Your task to perform on an android device: Do I have any events today? Image 0: 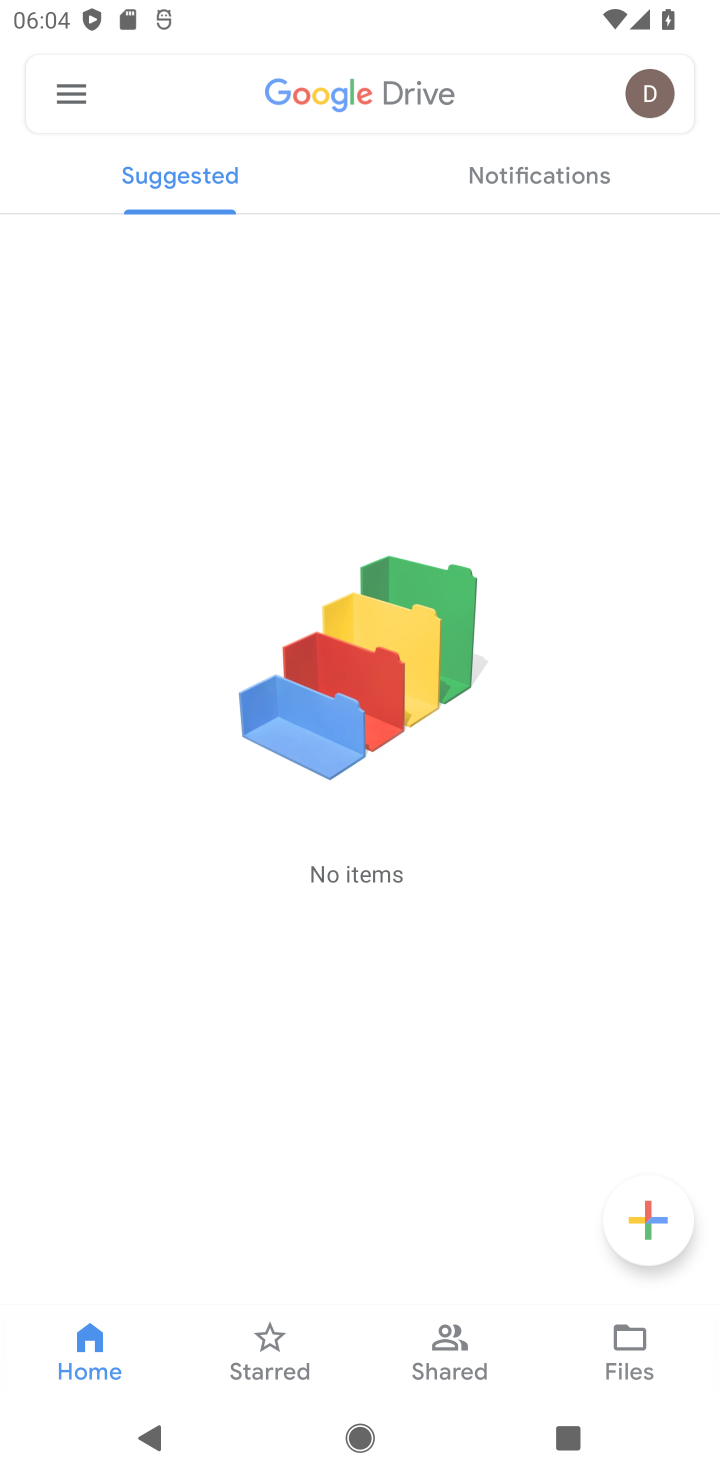
Step 0: press home button
Your task to perform on an android device: Do I have any events today? Image 1: 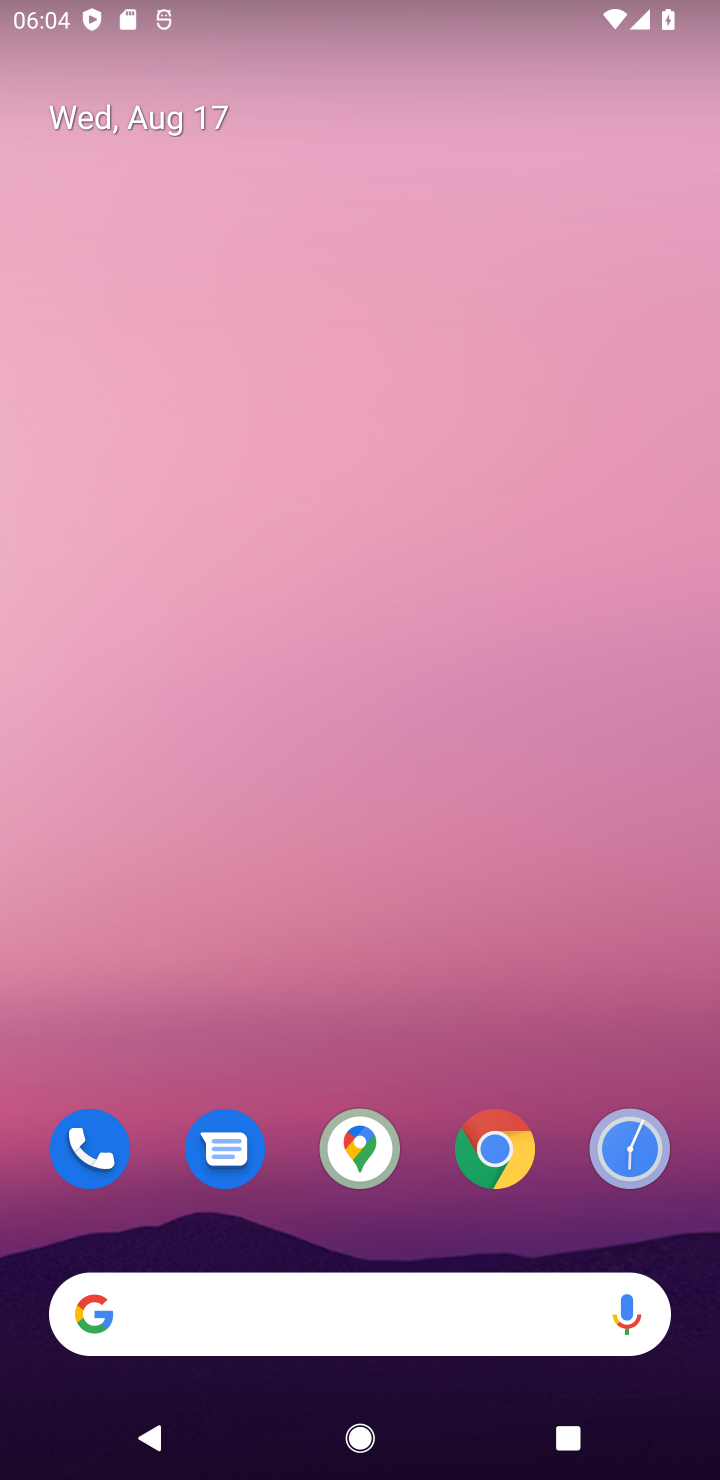
Step 1: drag from (445, 1059) to (339, 234)
Your task to perform on an android device: Do I have any events today? Image 2: 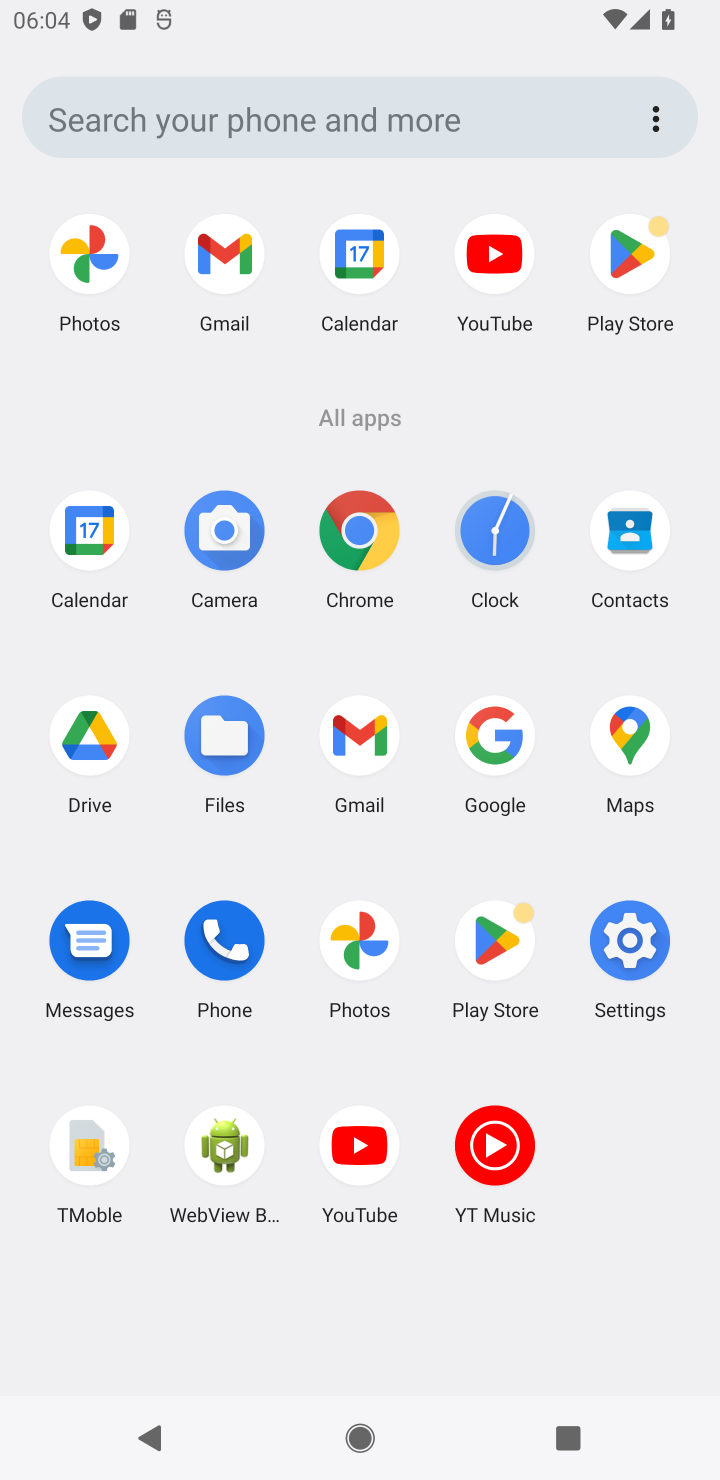
Step 2: click (77, 541)
Your task to perform on an android device: Do I have any events today? Image 3: 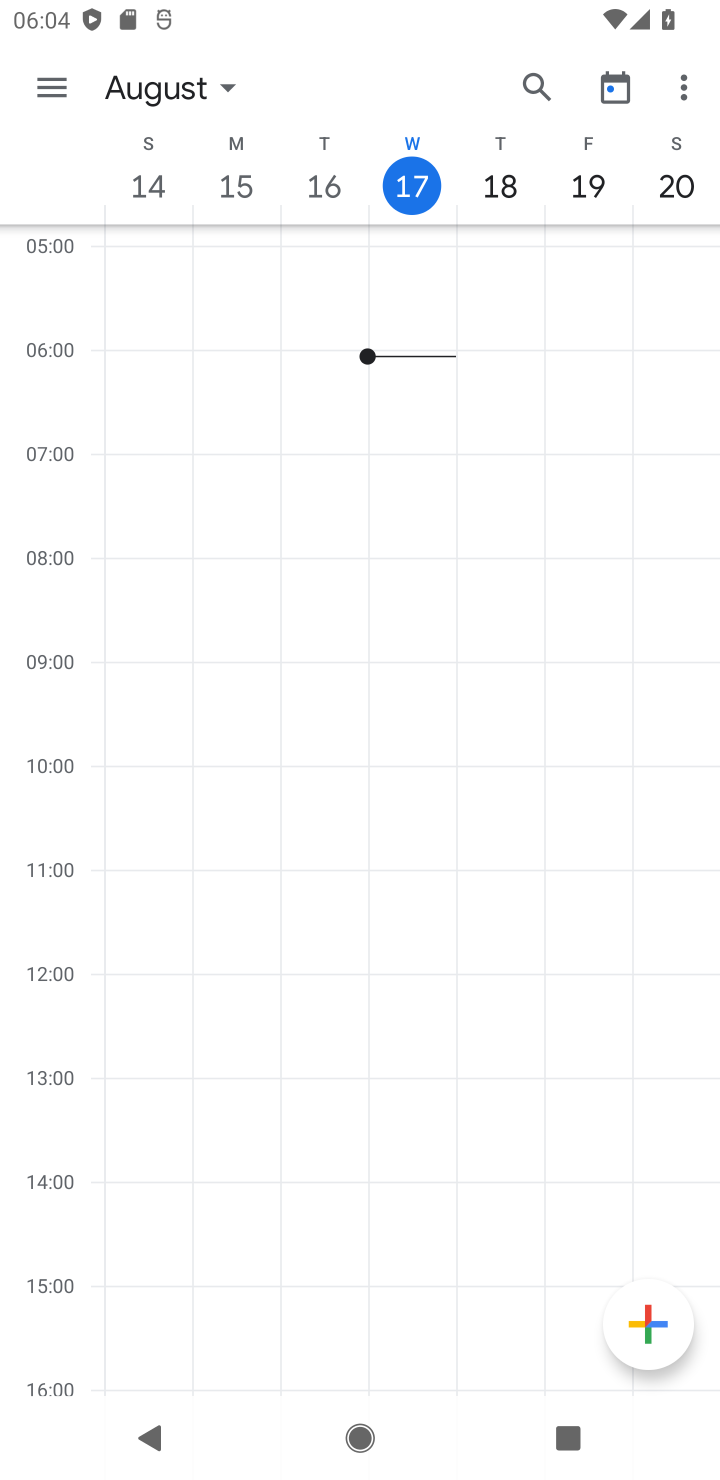
Step 3: click (413, 170)
Your task to perform on an android device: Do I have any events today? Image 4: 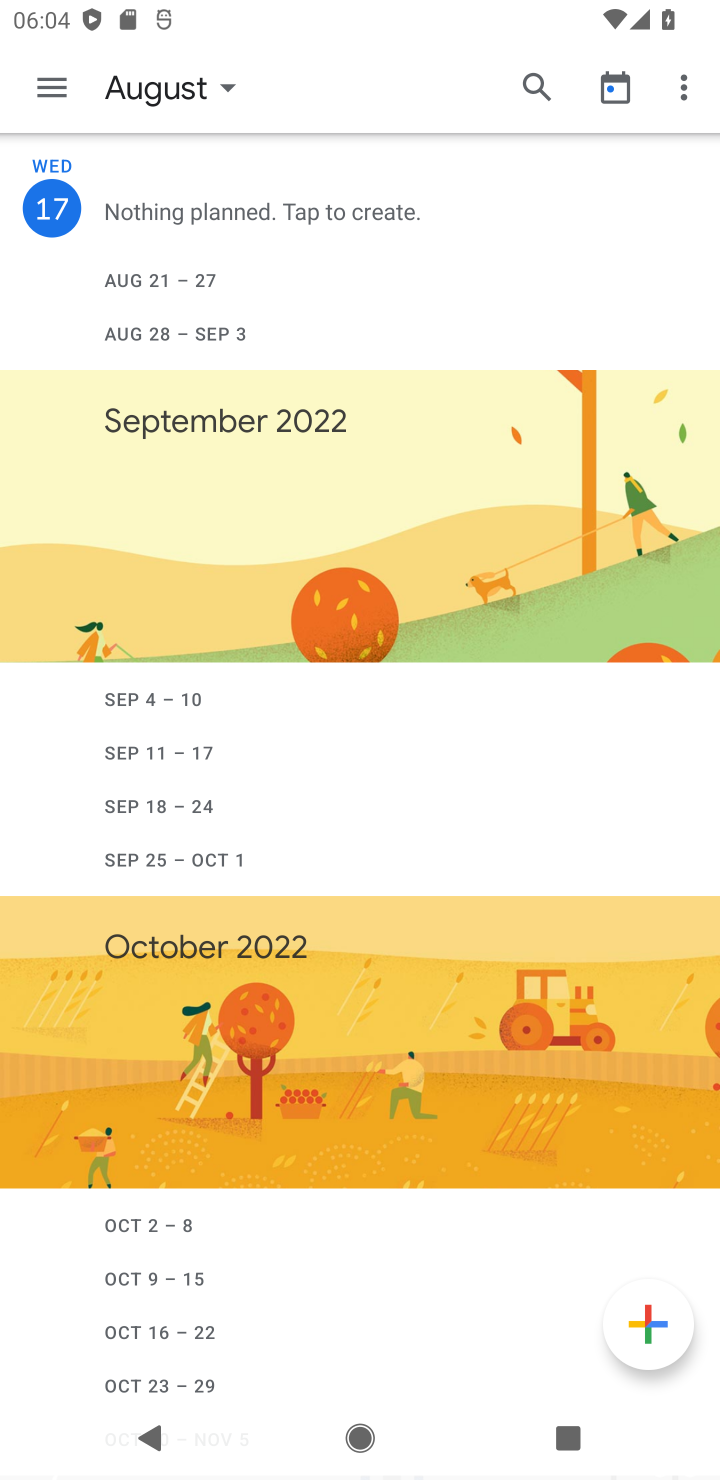
Step 4: click (30, 65)
Your task to perform on an android device: Do I have any events today? Image 5: 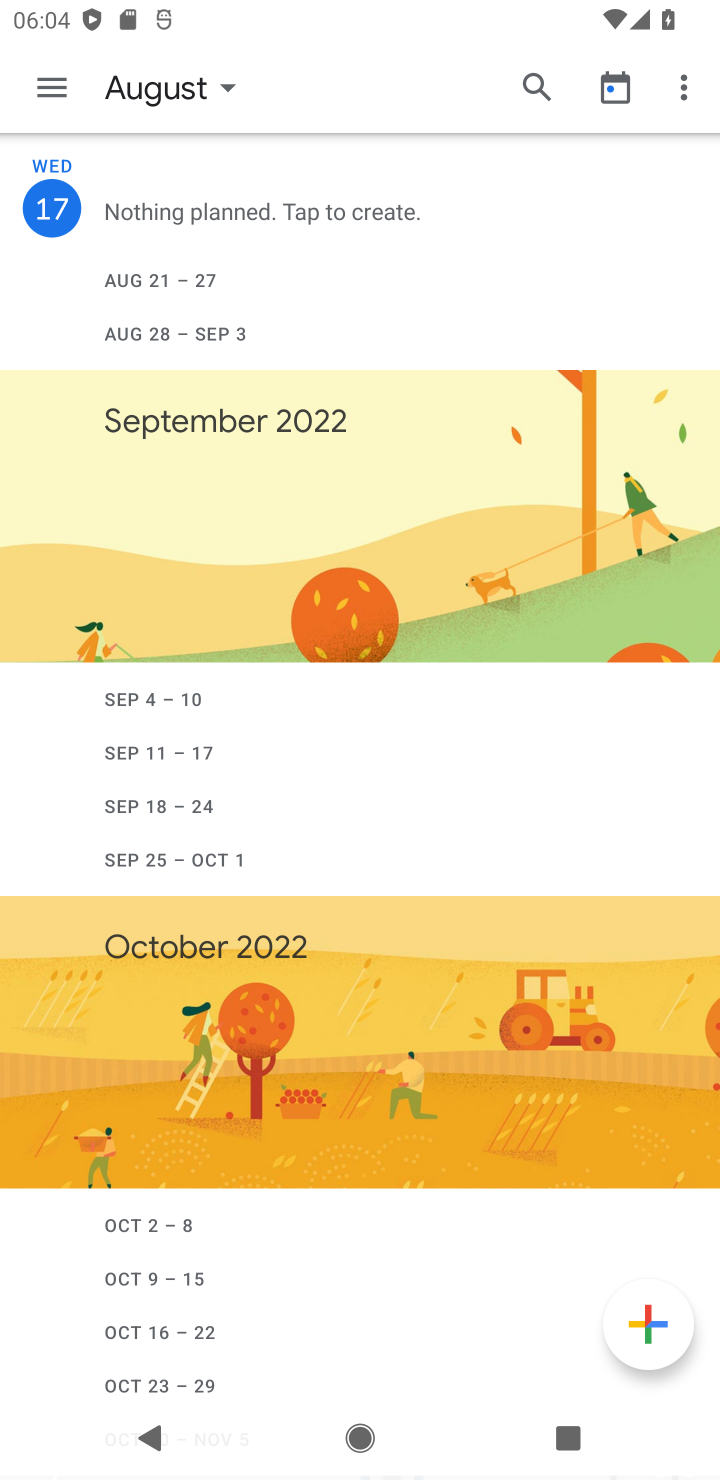
Step 5: click (63, 76)
Your task to perform on an android device: Do I have any events today? Image 6: 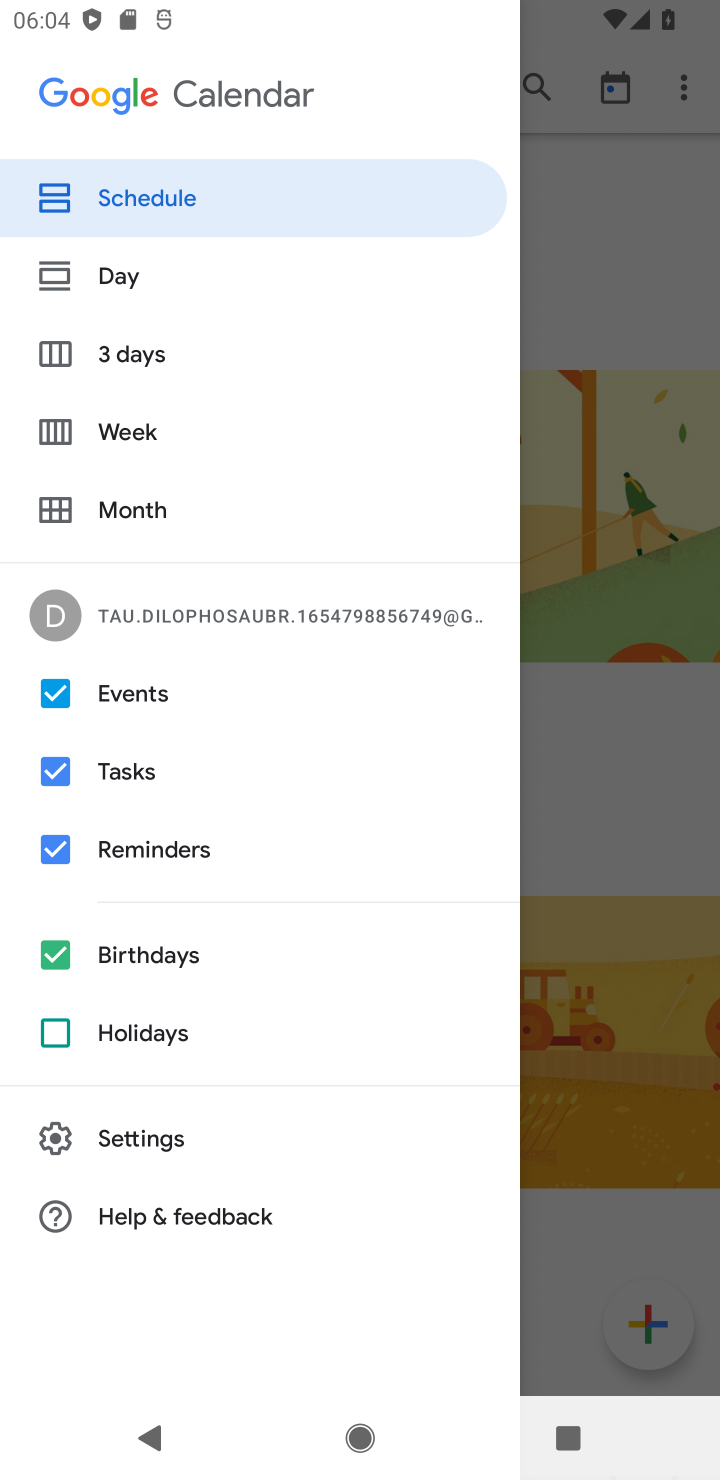
Step 6: click (131, 280)
Your task to perform on an android device: Do I have any events today? Image 7: 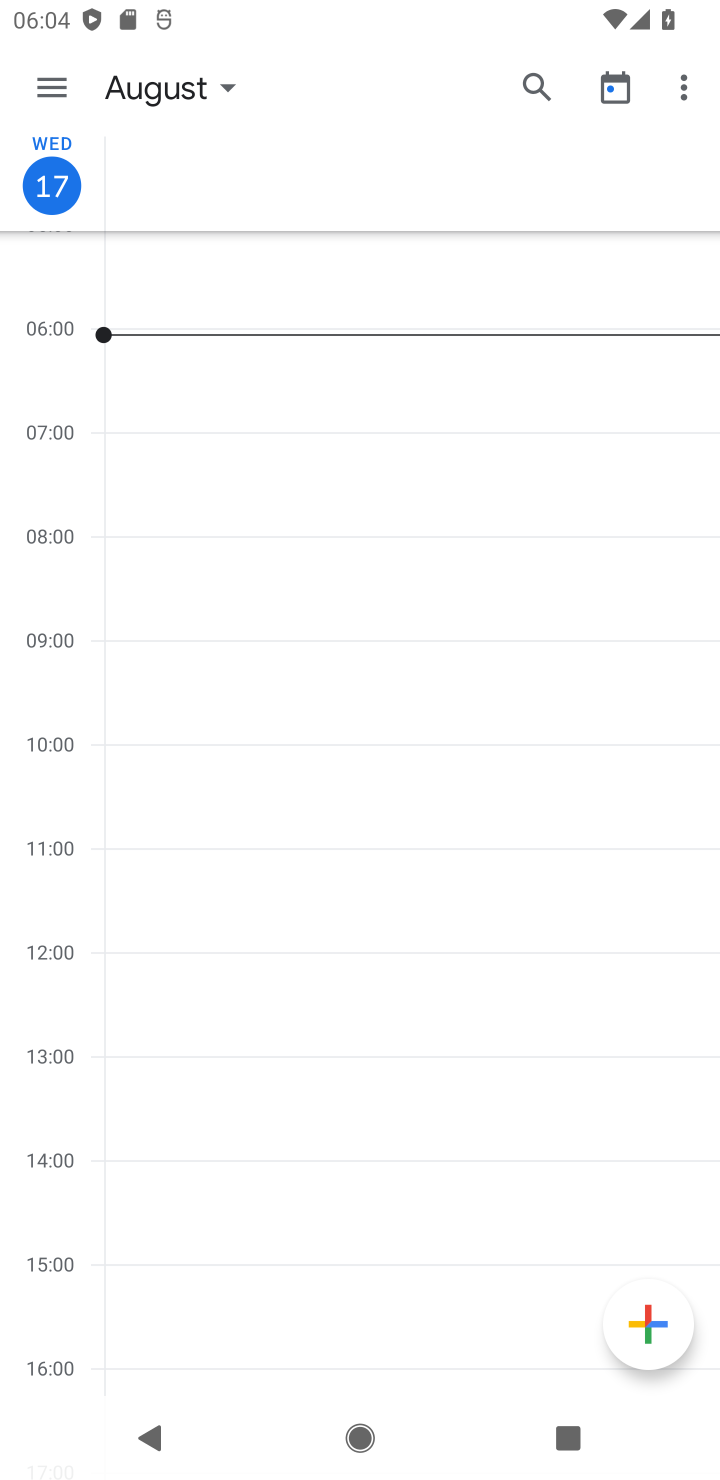
Step 7: task complete